Your task to perform on an android device: toggle pop-ups in chrome Image 0: 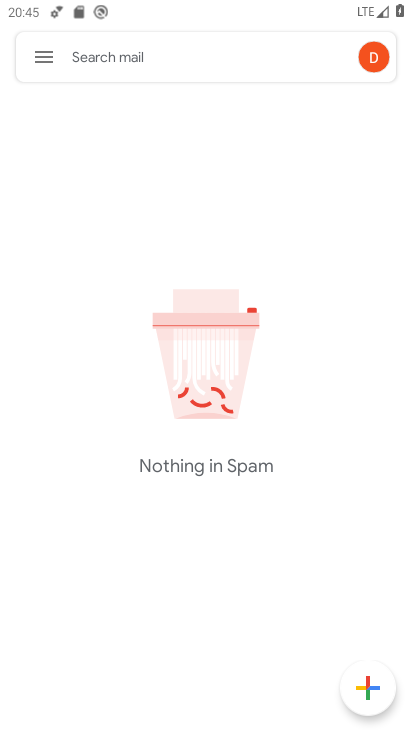
Step 0: press home button
Your task to perform on an android device: toggle pop-ups in chrome Image 1: 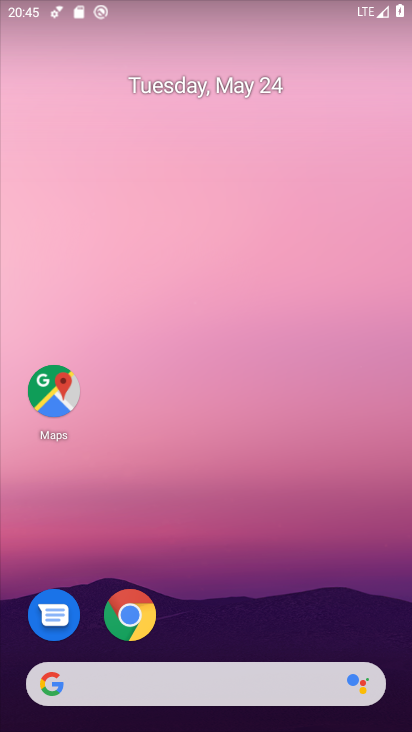
Step 1: drag from (153, 597) to (220, 173)
Your task to perform on an android device: toggle pop-ups in chrome Image 2: 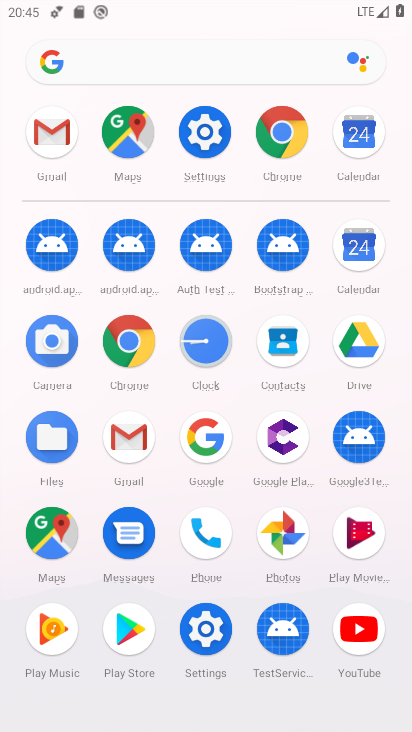
Step 2: click (271, 128)
Your task to perform on an android device: toggle pop-ups in chrome Image 3: 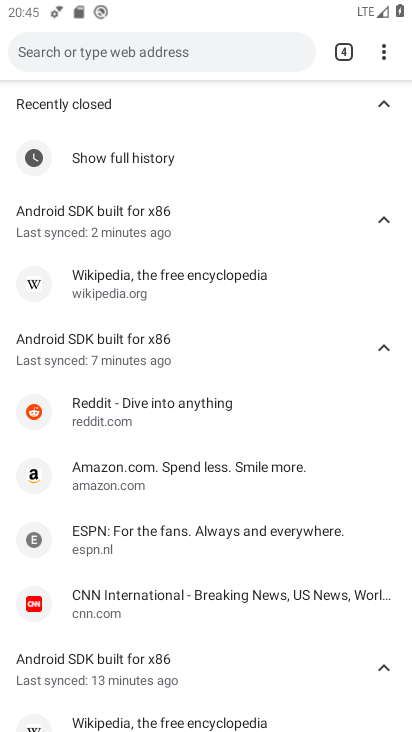
Step 3: click (385, 53)
Your task to perform on an android device: toggle pop-ups in chrome Image 4: 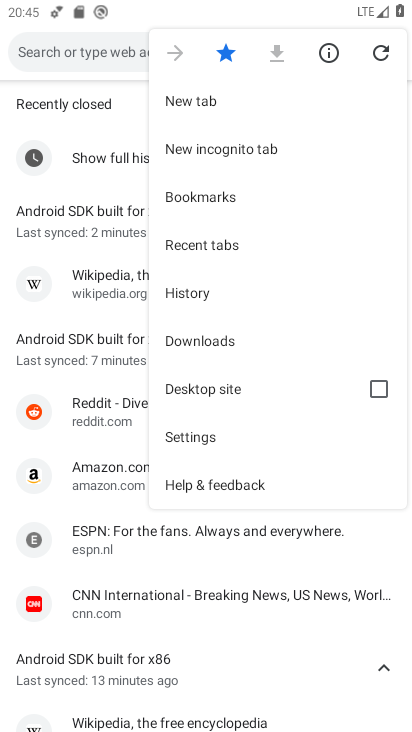
Step 4: click (214, 430)
Your task to perform on an android device: toggle pop-ups in chrome Image 5: 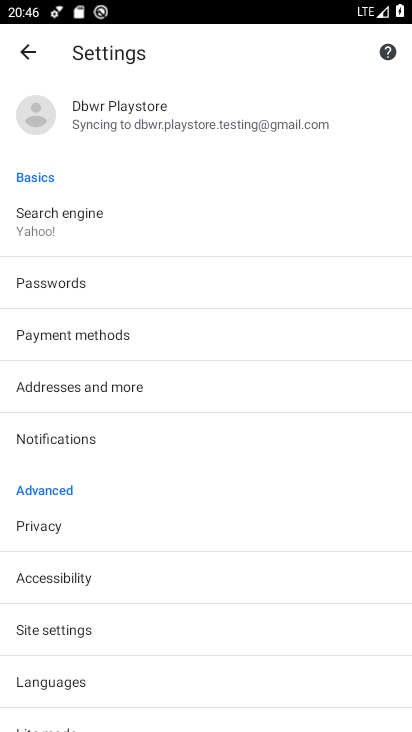
Step 5: drag from (162, 600) to (169, 450)
Your task to perform on an android device: toggle pop-ups in chrome Image 6: 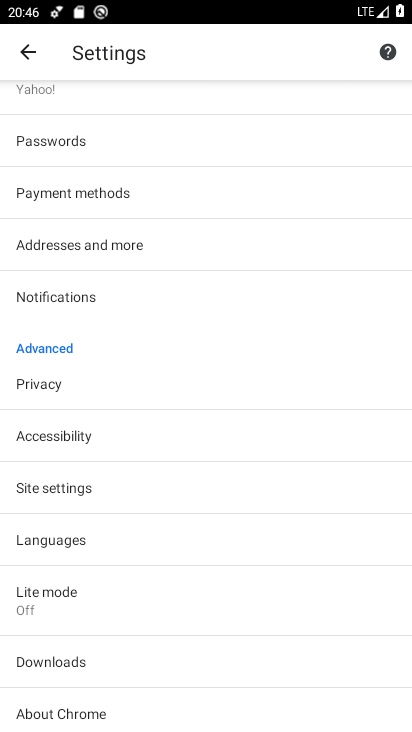
Step 6: click (108, 495)
Your task to perform on an android device: toggle pop-ups in chrome Image 7: 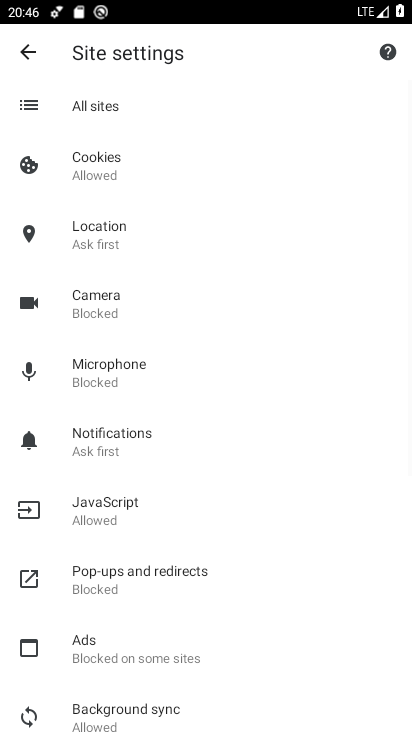
Step 7: click (143, 581)
Your task to perform on an android device: toggle pop-ups in chrome Image 8: 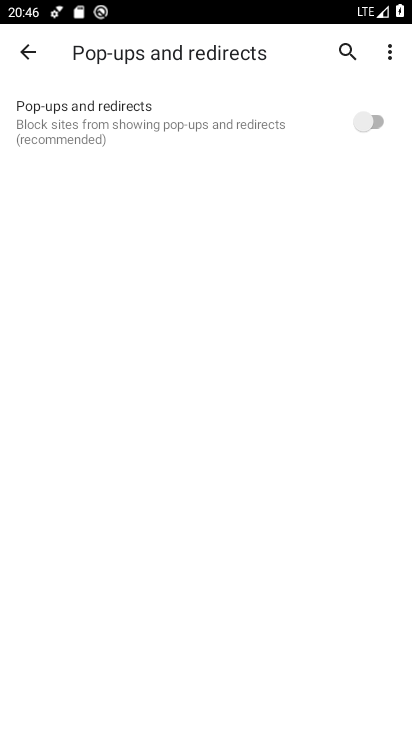
Step 8: click (375, 122)
Your task to perform on an android device: toggle pop-ups in chrome Image 9: 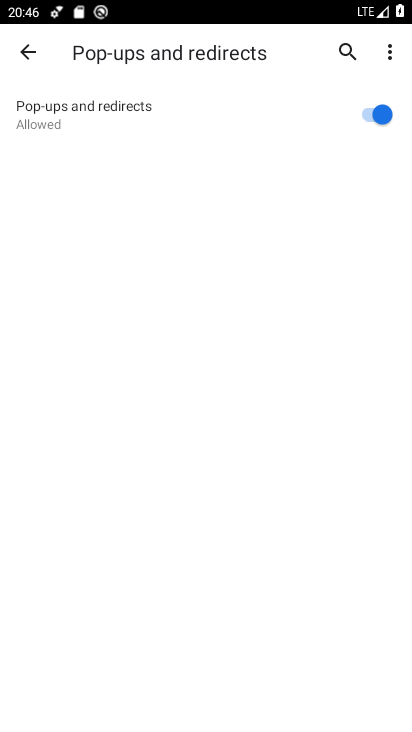
Step 9: task complete